Your task to perform on an android device: open chrome privacy settings Image 0: 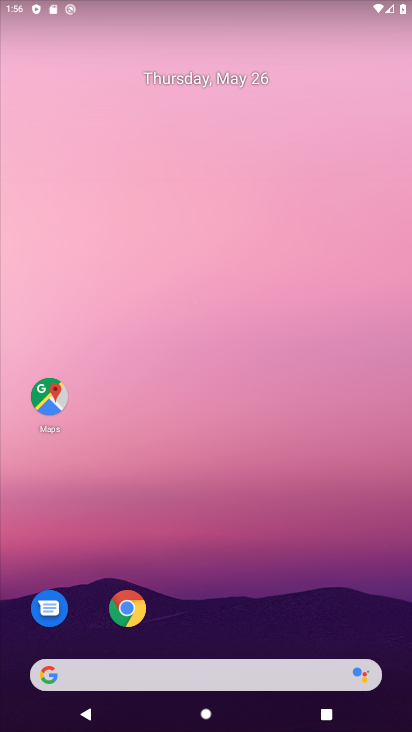
Step 0: drag from (299, 605) to (313, 90)
Your task to perform on an android device: open chrome privacy settings Image 1: 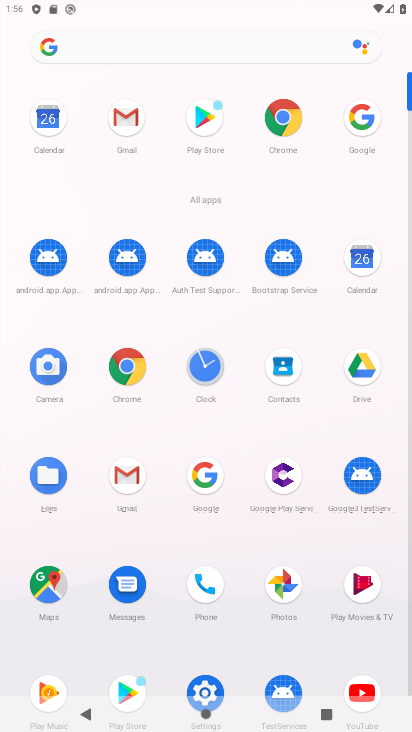
Step 1: click (259, 105)
Your task to perform on an android device: open chrome privacy settings Image 2: 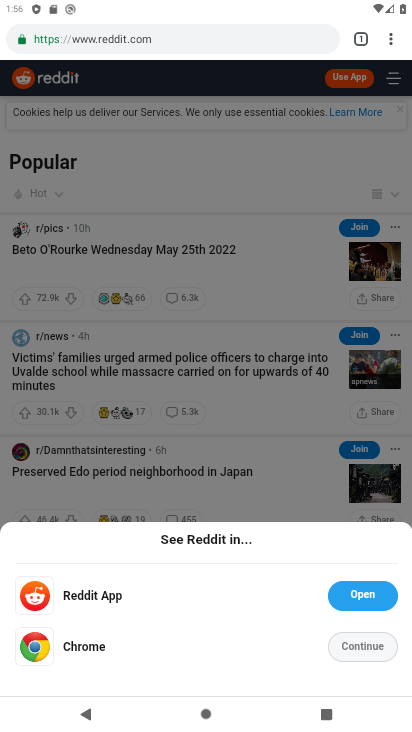
Step 2: drag from (388, 45) to (260, 457)
Your task to perform on an android device: open chrome privacy settings Image 3: 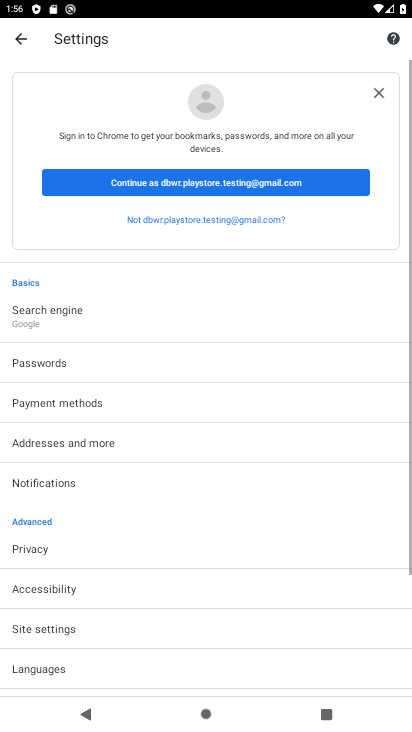
Step 3: click (37, 544)
Your task to perform on an android device: open chrome privacy settings Image 4: 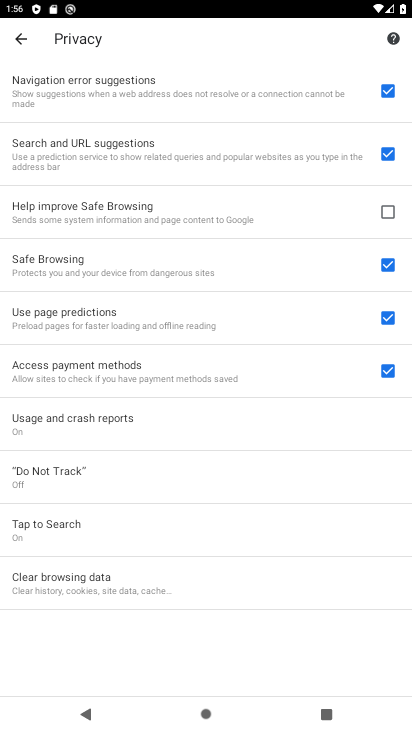
Step 4: task complete